Your task to perform on an android device: turn on data saver in the chrome app Image 0: 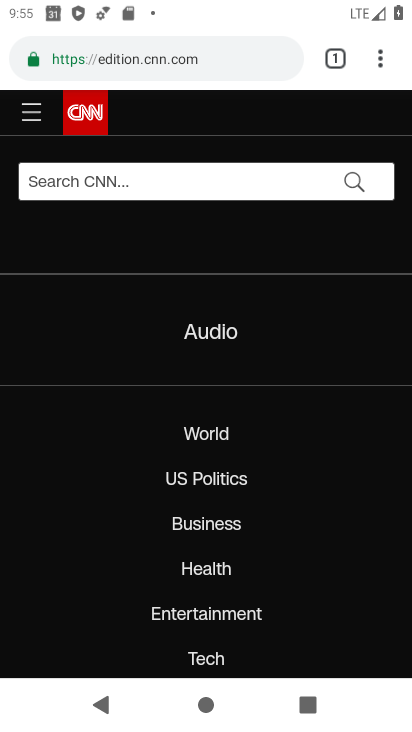
Step 0: press home button
Your task to perform on an android device: turn on data saver in the chrome app Image 1: 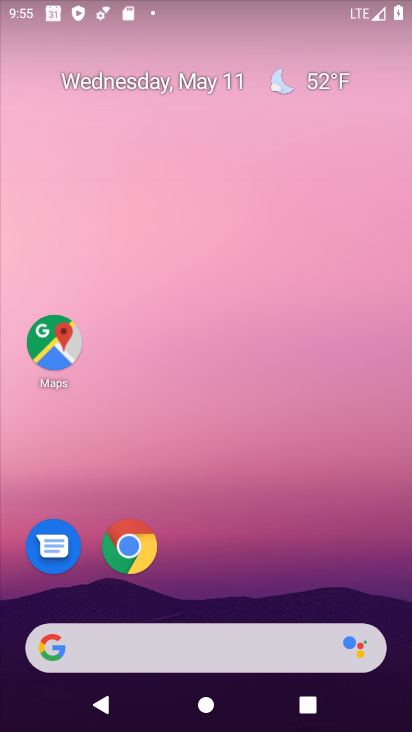
Step 1: click (154, 549)
Your task to perform on an android device: turn on data saver in the chrome app Image 2: 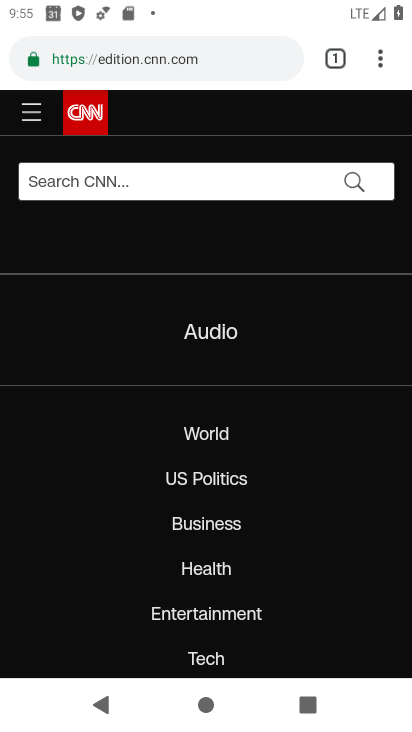
Step 2: drag from (381, 73) to (207, 567)
Your task to perform on an android device: turn on data saver in the chrome app Image 3: 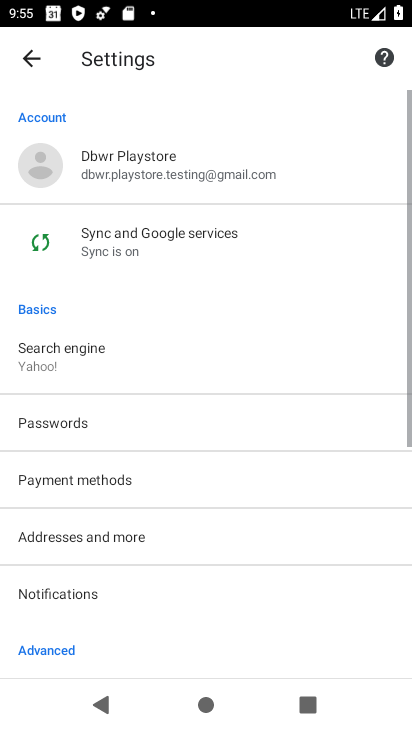
Step 3: drag from (158, 614) to (101, 186)
Your task to perform on an android device: turn on data saver in the chrome app Image 4: 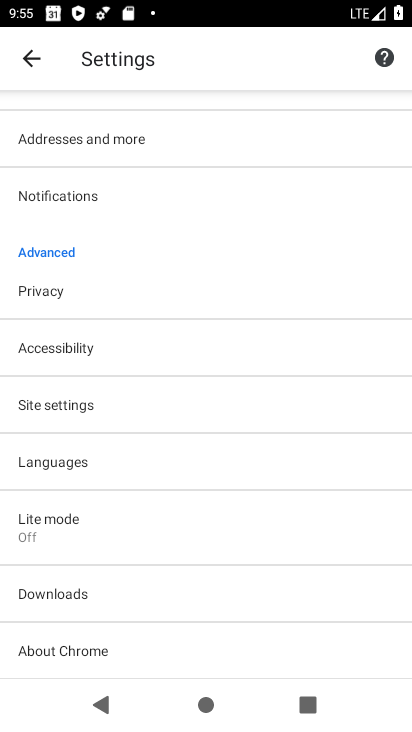
Step 4: click (74, 539)
Your task to perform on an android device: turn on data saver in the chrome app Image 5: 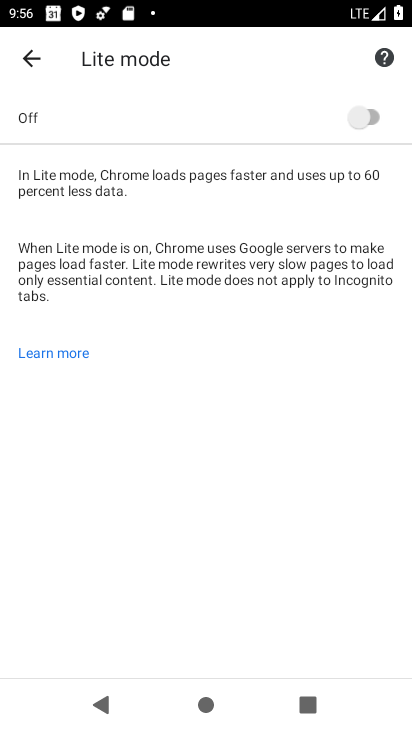
Step 5: click (370, 115)
Your task to perform on an android device: turn on data saver in the chrome app Image 6: 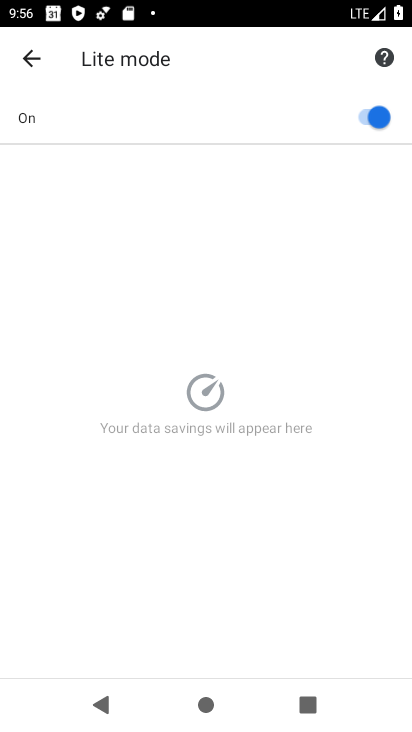
Step 6: task complete